Your task to perform on an android device: What's the weather? Image 0: 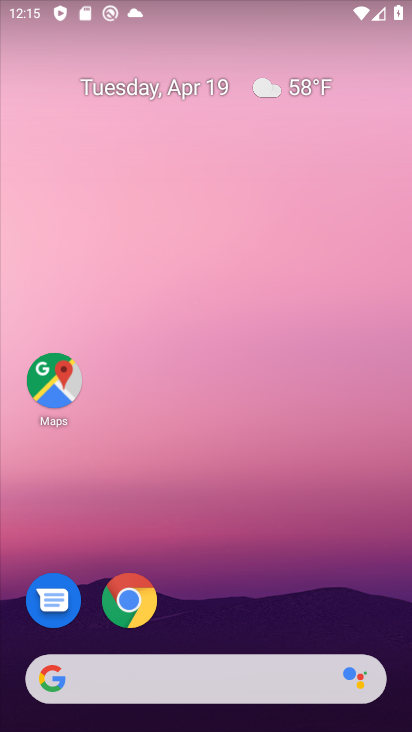
Step 0: drag from (359, 586) to (298, 193)
Your task to perform on an android device: What's the weather? Image 1: 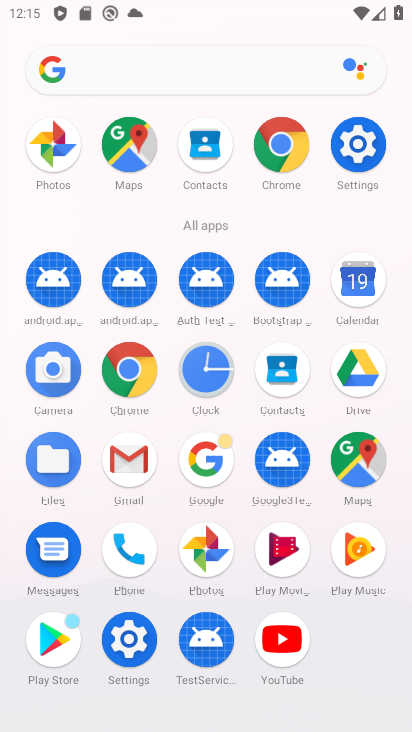
Step 1: drag from (282, 727) to (321, 724)
Your task to perform on an android device: What's the weather? Image 2: 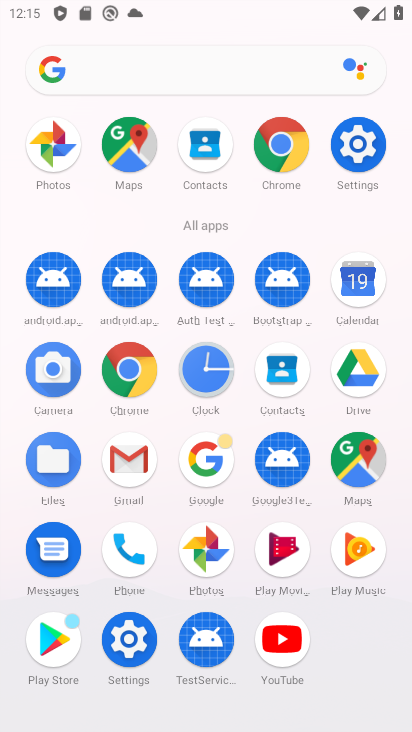
Step 2: click (212, 76)
Your task to perform on an android device: What's the weather? Image 3: 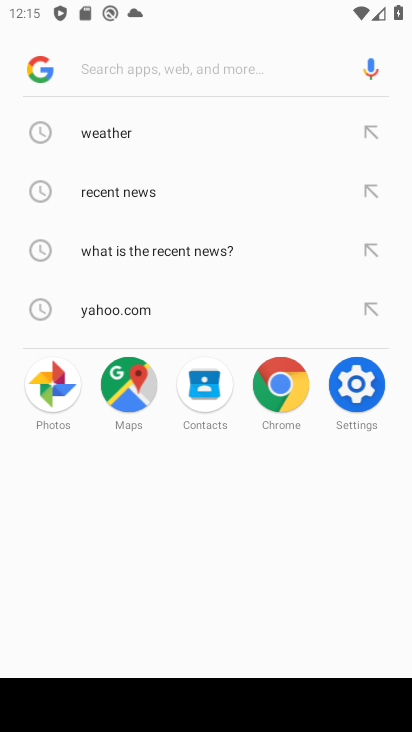
Step 3: type "What's the weather?"
Your task to perform on an android device: What's the weather? Image 4: 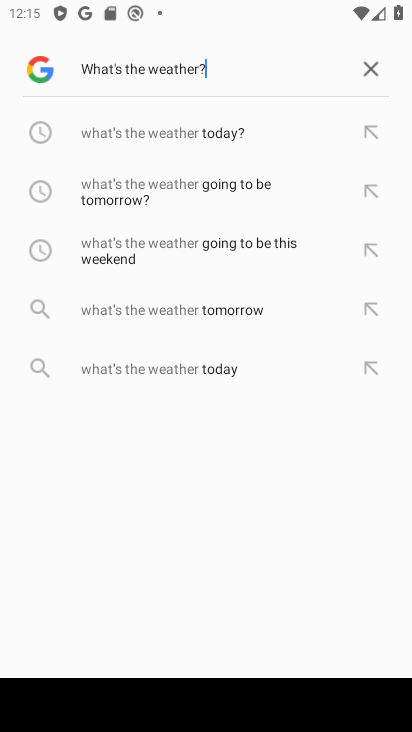
Step 4: click (204, 135)
Your task to perform on an android device: What's the weather? Image 5: 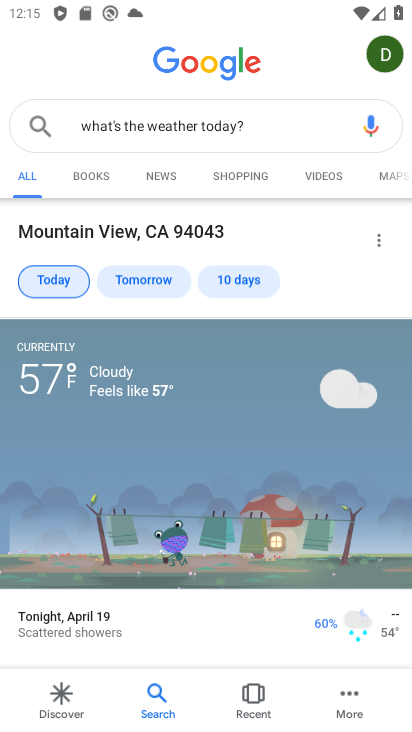
Step 5: task complete